Your task to perform on an android device: Open Youtube and go to the subscriptions tab Image 0: 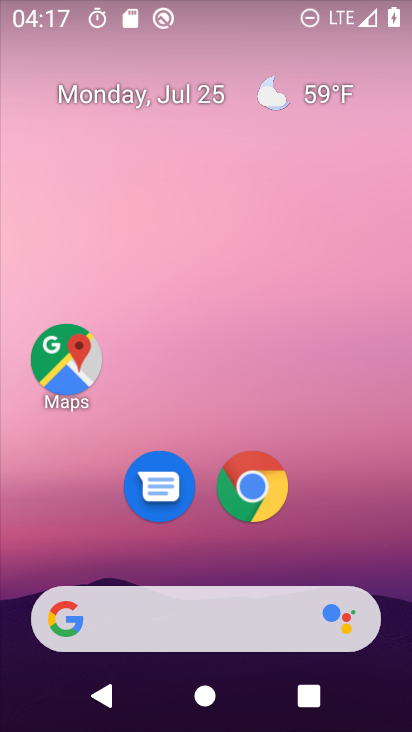
Step 0: drag from (170, 537) to (262, 3)
Your task to perform on an android device: Open Youtube and go to the subscriptions tab Image 1: 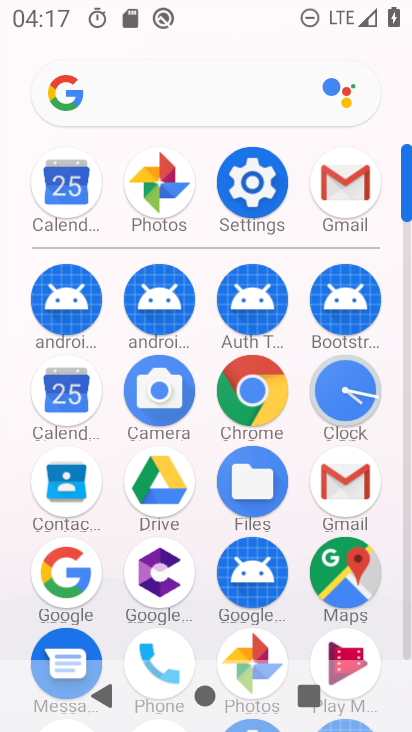
Step 1: drag from (168, 615) to (265, 77)
Your task to perform on an android device: Open Youtube and go to the subscriptions tab Image 2: 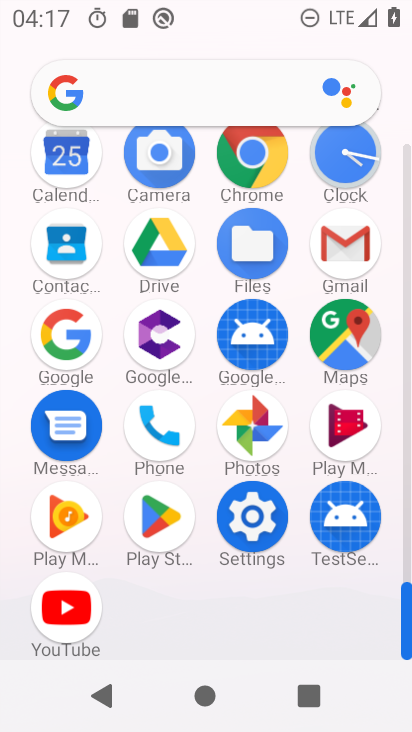
Step 2: click (52, 598)
Your task to perform on an android device: Open Youtube and go to the subscriptions tab Image 3: 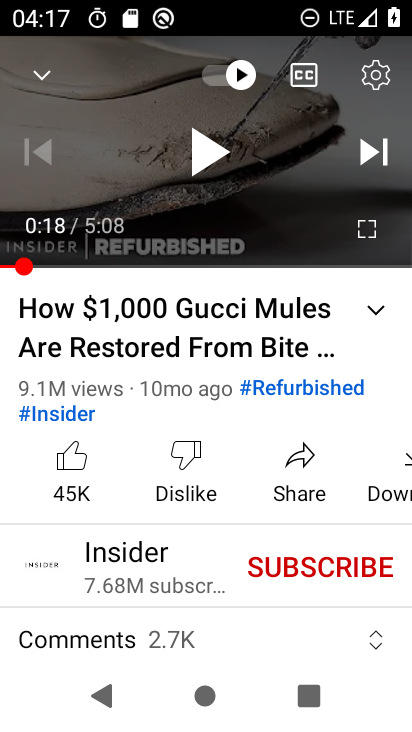
Step 3: click (19, 72)
Your task to perform on an android device: Open Youtube and go to the subscriptions tab Image 4: 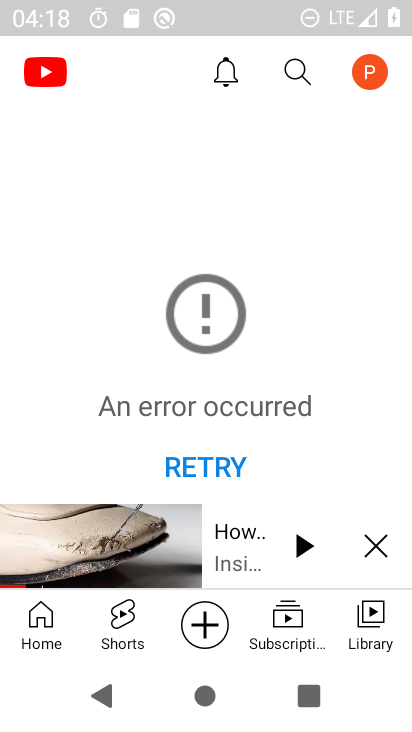
Step 4: click (296, 622)
Your task to perform on an android device: Open Youtube and go to the subscriptions tab Image 5: 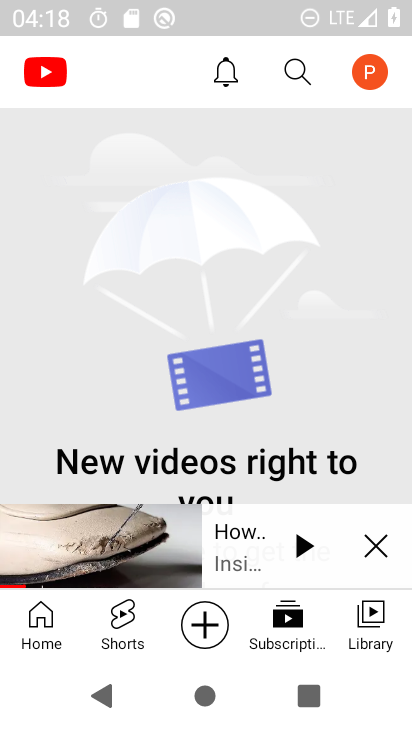
Step 5: task complete